Your task to perform on an android device: Go to Reddit.com Image 0: 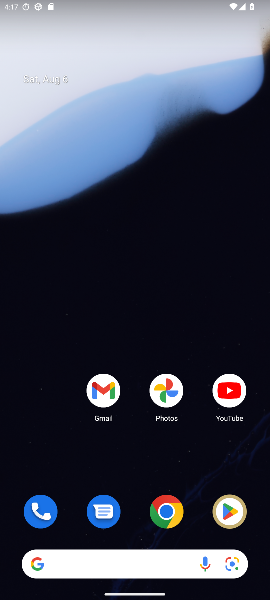
Step 0: click (176, 512)
Your task to perform on an android device: Go to Reddit.com Image 1: 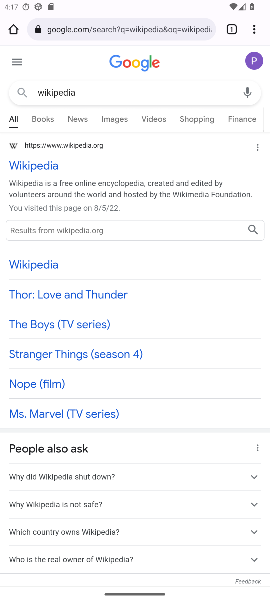
Step 1: click (109, 27)
Your task to perform on an android device: Go to Reddit.com Image 2: 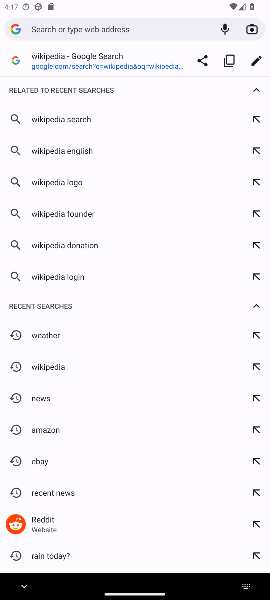
Step 2: type "Reddit.com"
Your task to perform on an android device: Go to Reddit.com Image 3: 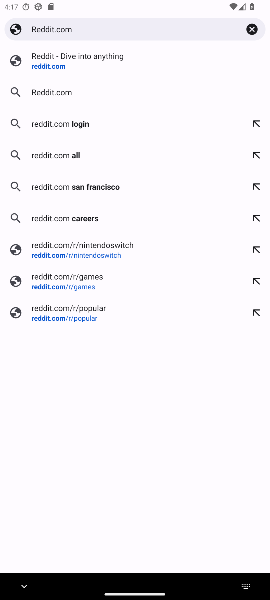
Step 3: click (58, 68)
Your task to perform on an android device: Go to Reddit.com Image 4: 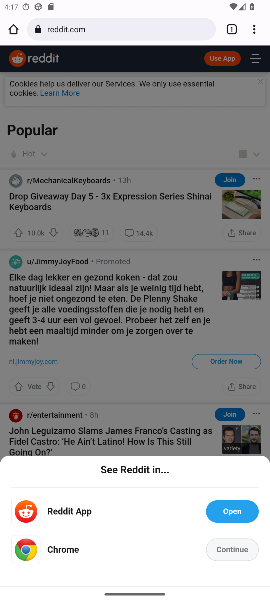
Step 4: click (222, 546)
Your task to perform on an android device: Go to Reddit.com Image 5: 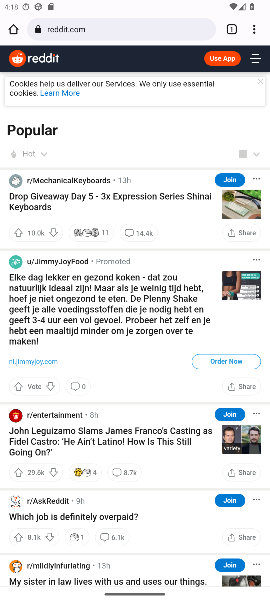
Step 5: task complete